Your task to perform on an android device: Open eBay Image 0: 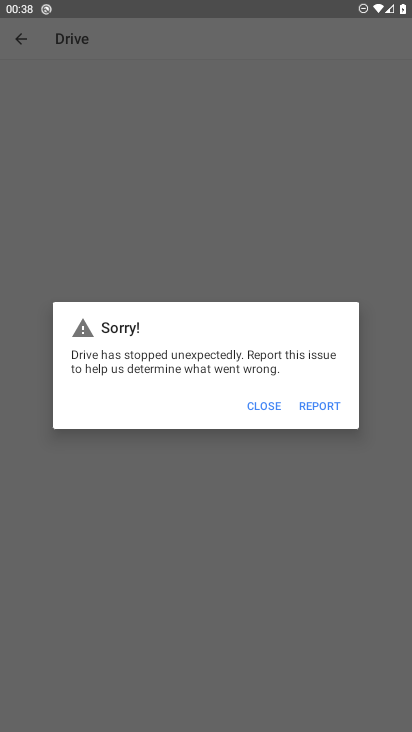
Step 0: press home button
Your task to perform on an android device: Open eBay Image 1: 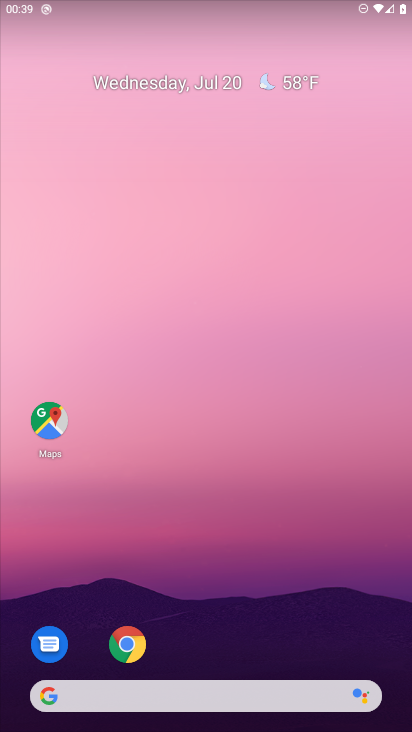
Step 1: click (85, 693)
Your task to perform on an android device: Open eBay Image 2: 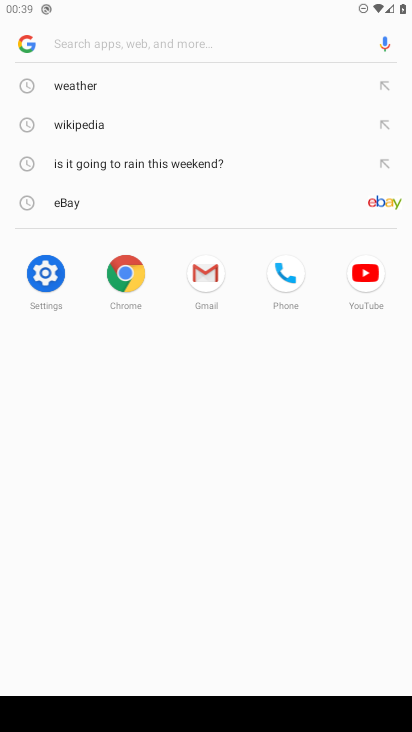
Step 2: click (84, 201)
Your task to perform on an android device: Open eBay Image 3: 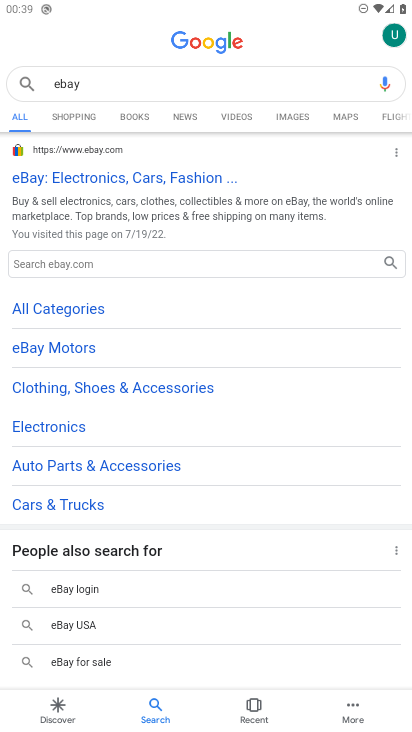
Step 3: task complete